Your task to perform on an android device: Find coffee shops on Maps Image 0: 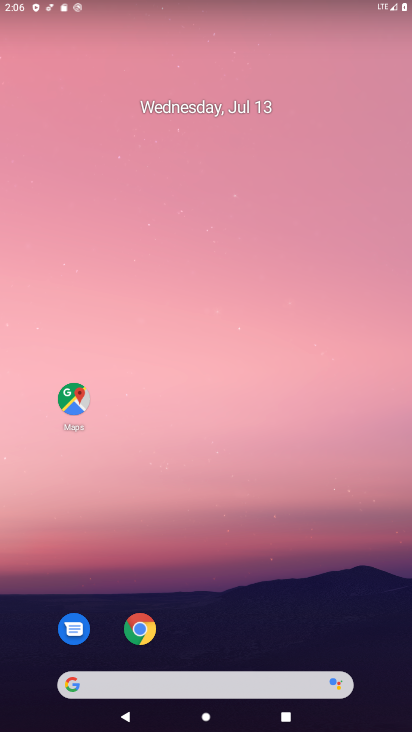
Step 0: drag from (347, 637) to (268, 44)
Your task to perform on an android device: Find coffee shops on Maps Image 1: 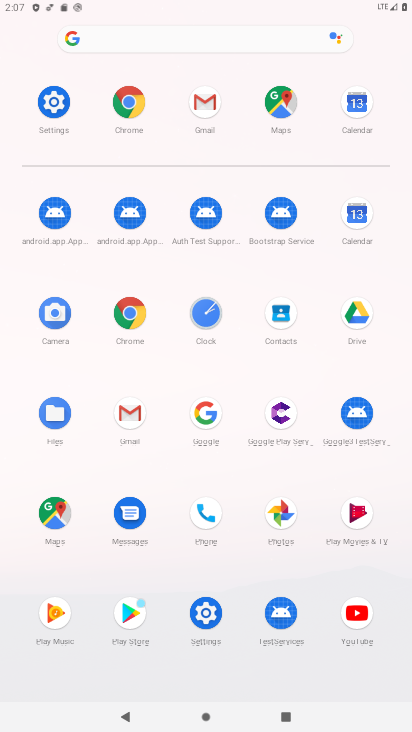
Step 1: click (286, 112)
Your task to perform on an android device: Find coffee shops on Maps Image 2: 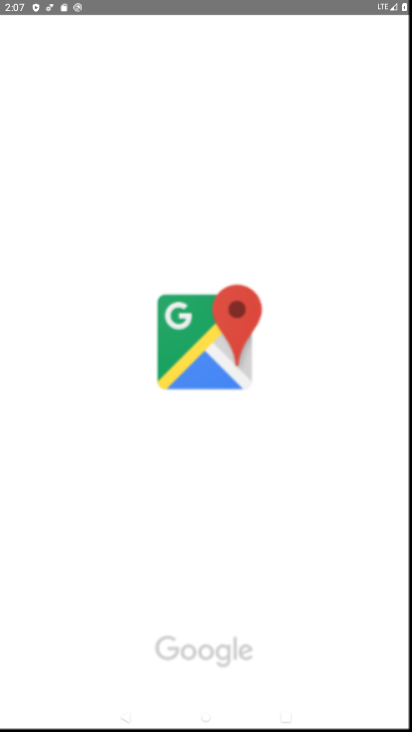
Step 2: task complete